Your task to perform on an android device: Open notification settings Image 0: 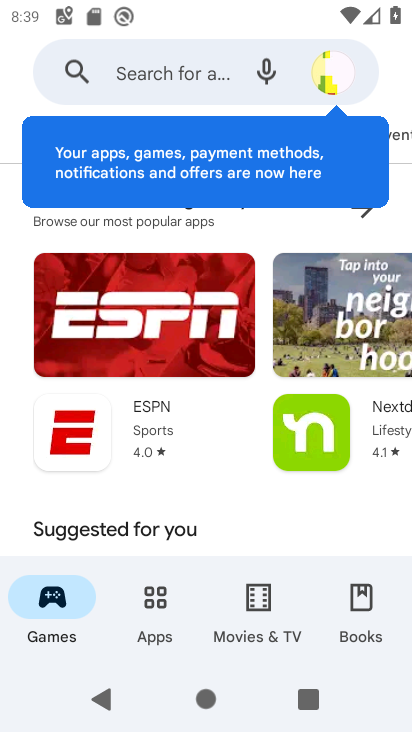
Step 0: press home button
Your task to perform on an android device: Open notification settings Image 1: 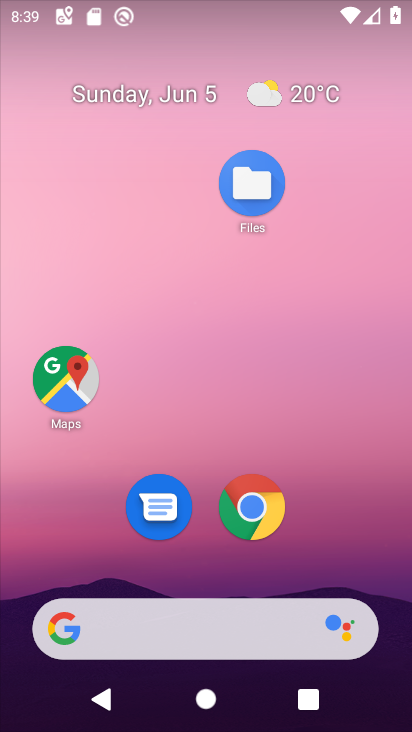
Step 1: drag from (181, 579) to (386, 79)
Your task to perform on an android device: Open notification settings Image 2: 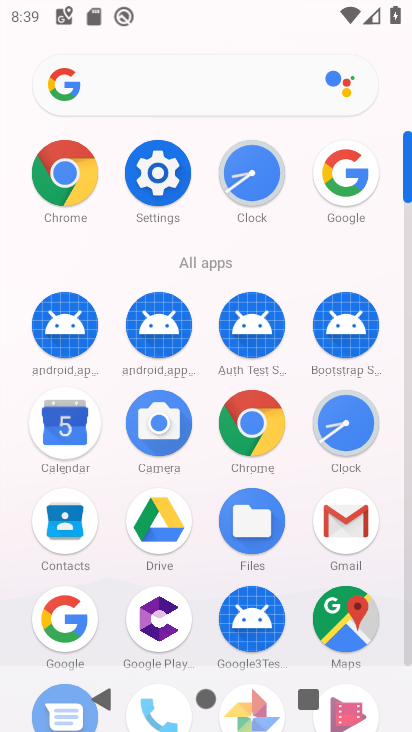
Step 2: click (173, 149)
Your task to perform on an android device: Open notification settings Image 3: 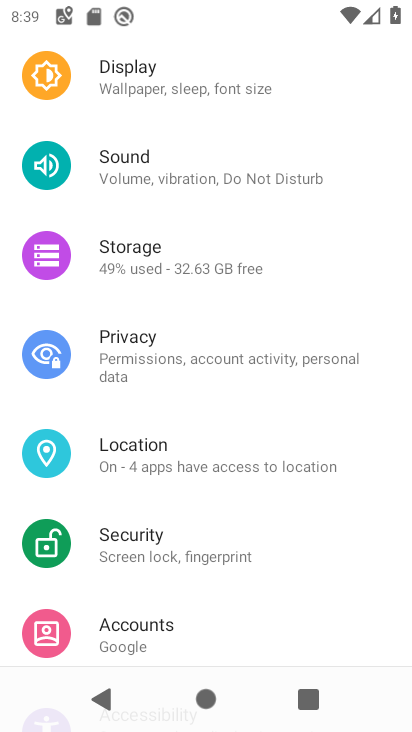
Step 3: click (173, 149)
Your task to perform on an android device: Open notification settings Image 4: 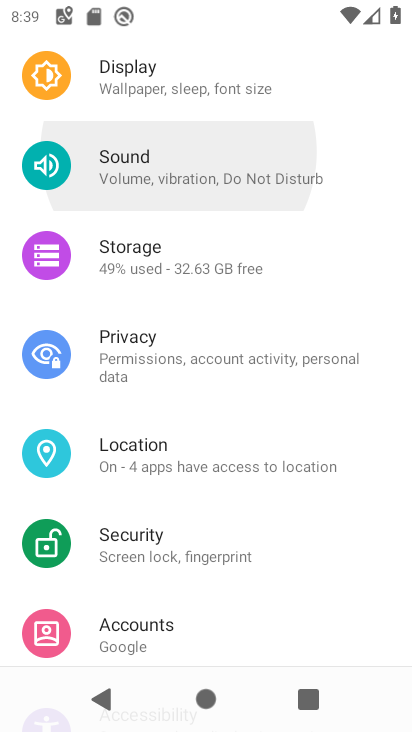
Step 4: task complete